Your task to perform on an android device: open chrome and create a bookmark for the current page Image 0: 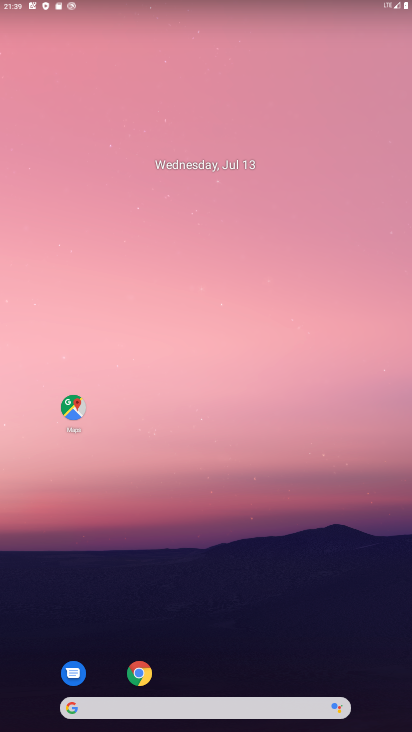
Step 0: drag from (172, 684) to (236, 289)
Your task to perform on an android device: open chrome and create a bookmark for the current page Image 1: 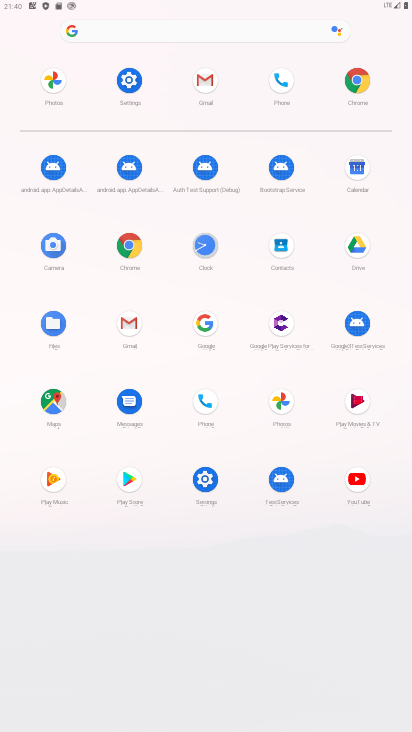
Step 1: click (132, 247)
Your task to perform on an android device: open chrome and create a bookmark for the current page Image 2: 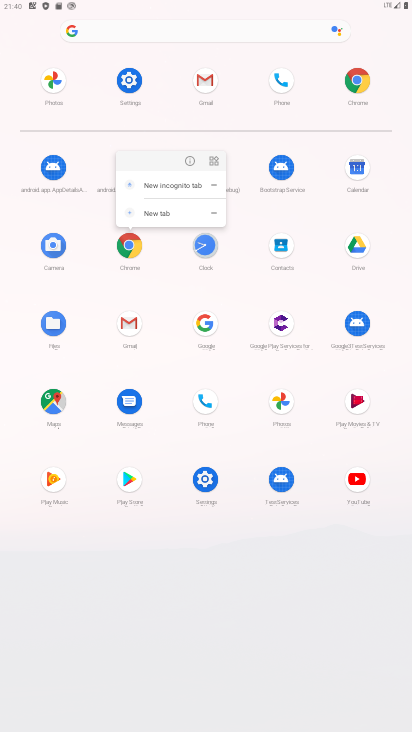
Step 2: click (188, 160)
Your task to perform on an android device: open chrome and create a bookmark for the current page Image 3: 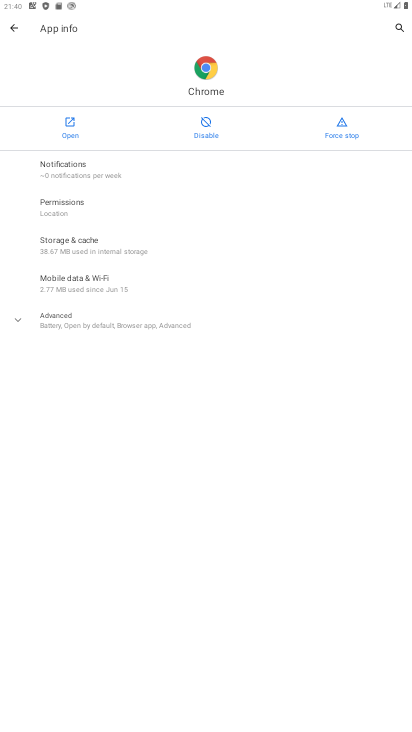
Step 3: click (75, 124)
Your task to perform on an android device: open chrome and create a bookmark for the current page Image 4: 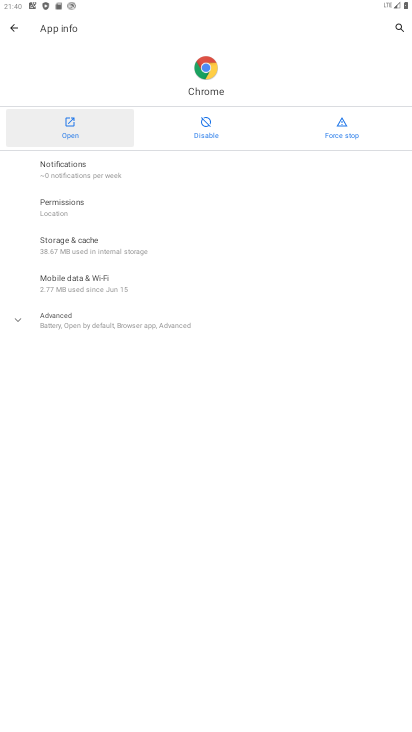
Step 4: click (75, 124)
Your task to perform on an android device: open chrome and create a bookmark for the current page Image 5: 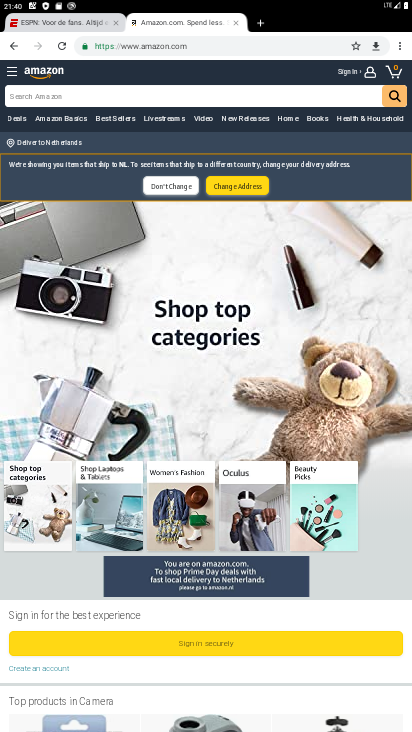
Step 5: drag from (188, 572) to (227, 208)
Your task to perform on an android device: open chrome and create a bookmark for the current page Image 6: 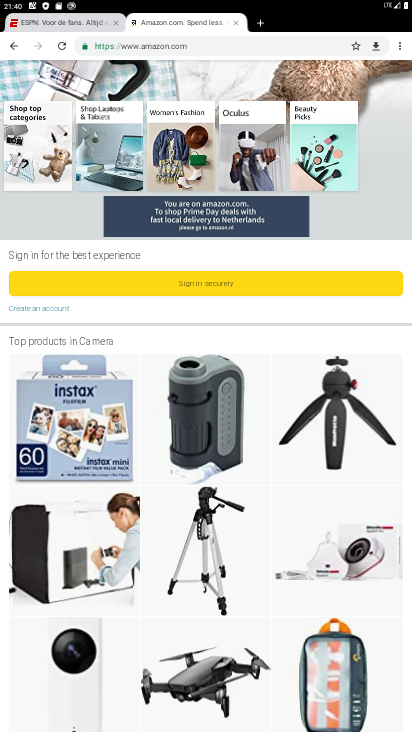
Step 6: drag from (200, 263) to (209, 702)
Your task to perform on an android device: open chrome and create a bookmark for the current page Image 7: 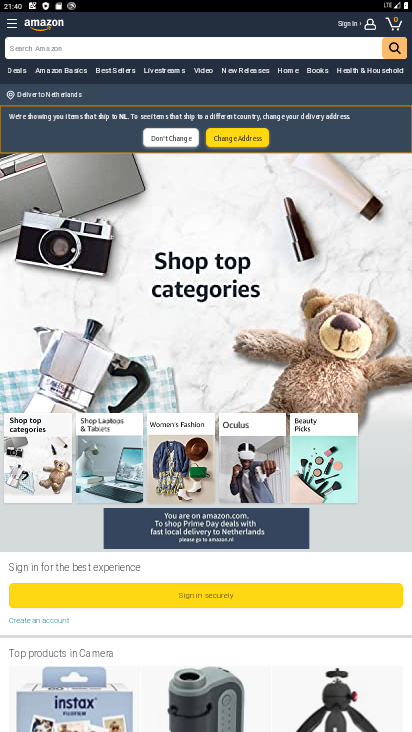
Step 7: drag from (308, 274) to (353, 591)
Your task to perform on an android device: open chrome and create a bookmark for the current page Image 8: 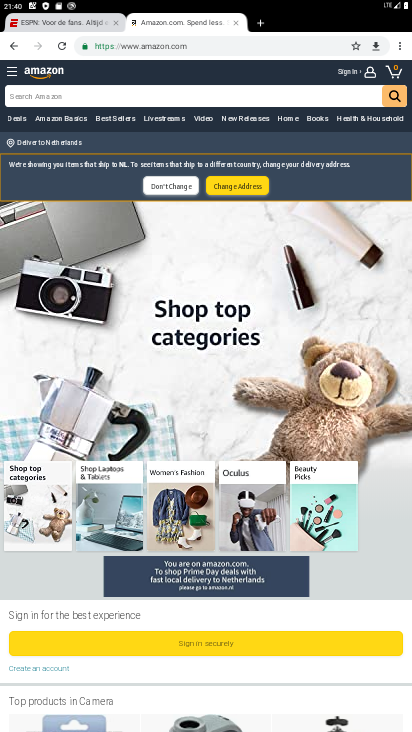
Step 8: click (401, 43)
Your task to perform on an android device: open chrome and create a bookmark for the current page Image 9: 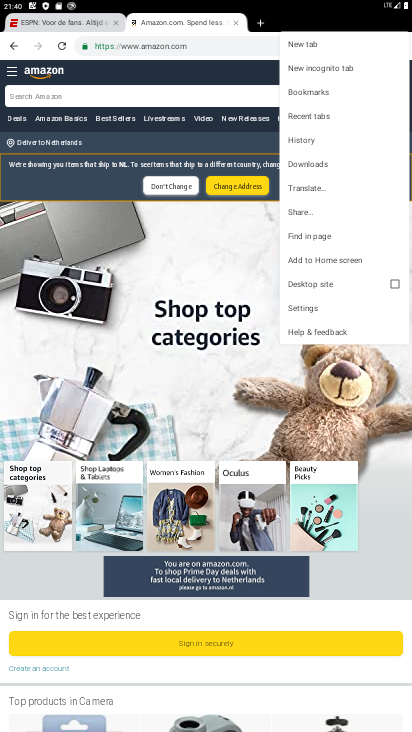
Step 9: click (299, 92)
Your task to perform on an android device: open chrome and create a bookmark for the current page Image 10: 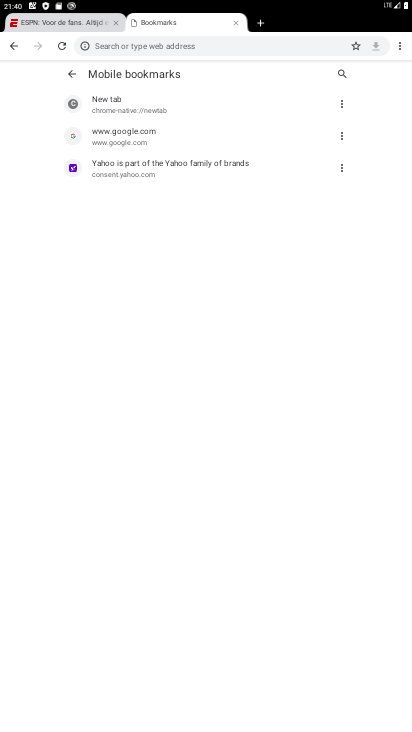
Step 10: drag from (218, 642) to (268, 428)
Your task to perform on an android device: open chrome and create a bookmark for the current page Image 11: 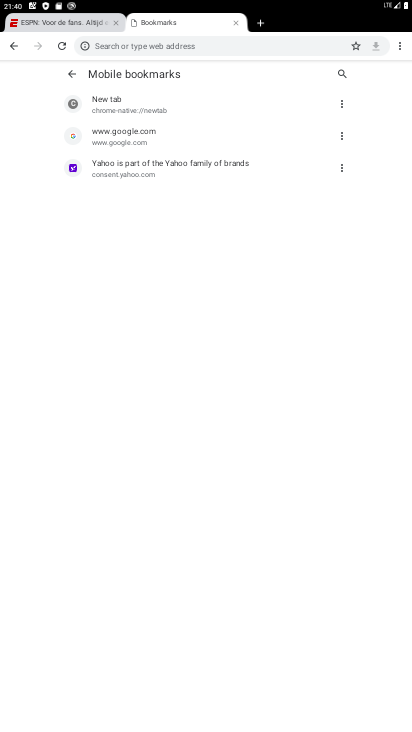
Step 11: drag from (188, 639) to (242, 425)
Your task to perform on an android device: open chrome and create a bookmark for the current page Image 12: 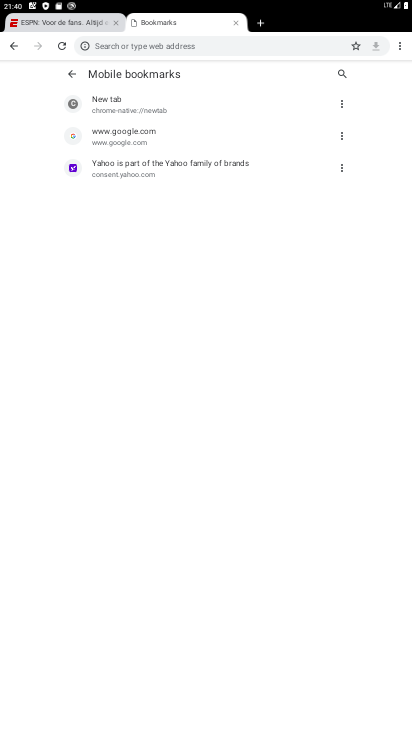
Step 12: click (351, 46)
Your task to perform on an android device: open chrome and create a bookmark for the current page Image 13: 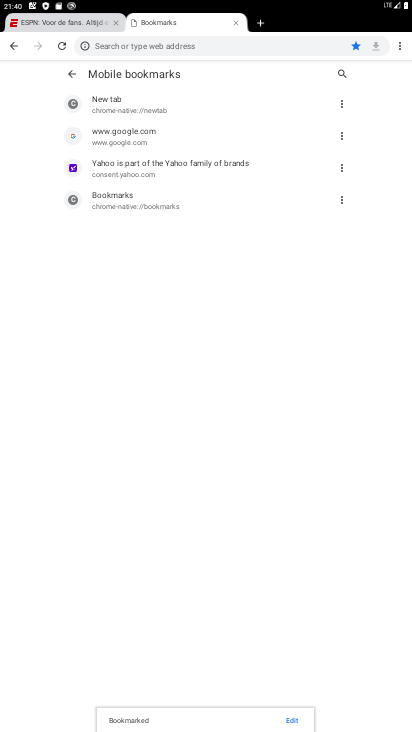
Step 13: task complete